Your task to perform on an android device: Find coffee shops on Maps Image 0: 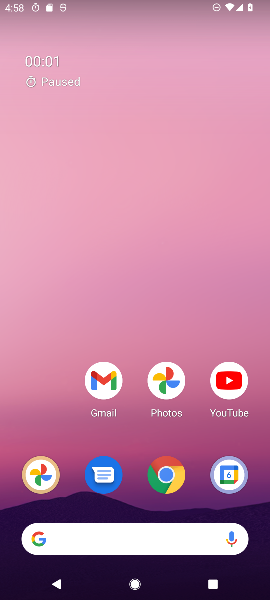
Step 0: drag from (45, 573) to (110, 358)
Your task to perform on an android device: Find coffee shops on Maps Image 1: 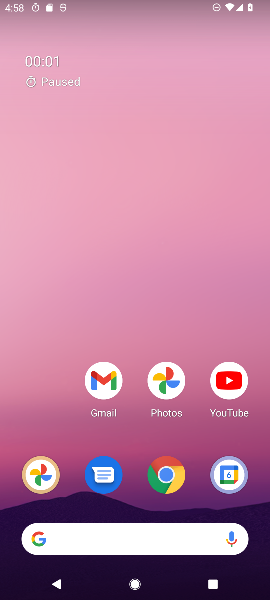
Step 1: drag from (34, 594) to (150, 262)
Your task to perform on an android device: Find coffee shops on Maps Image 2: 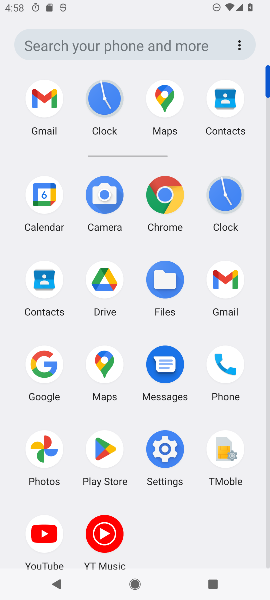
Step 2: click (93, 367)
Your task to perform on an android device: Find coffee shops on Maps Image 3: 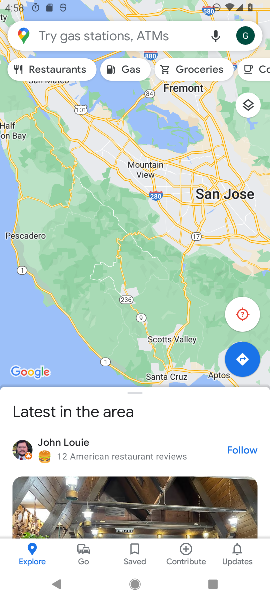
Step 3: click (57, 38)
Your task to perform on an android device: Find coffee shops on Maps Image 4: 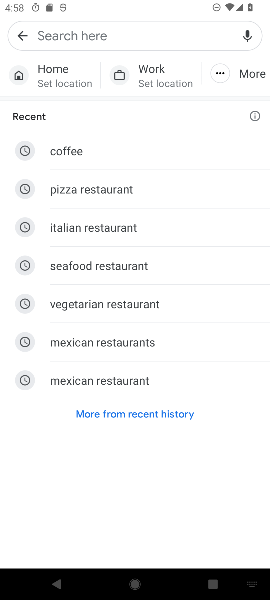
Step 4: type "coffee shops"
Your task to perform on an android device: Find coffee shops on Maps Image 5: 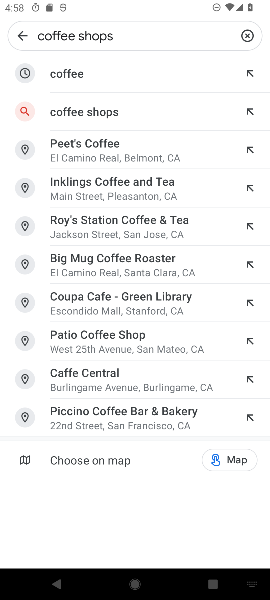
Step 5: click (96, 115)
Your task to perform on an android device: Find coffee shops on Maps Image 6: 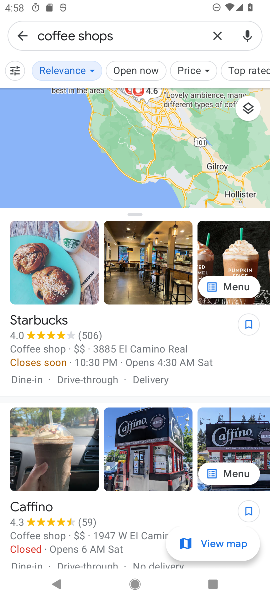
Step 6: task complete